Your task to perform on an android device: Open battery settings Image 0: 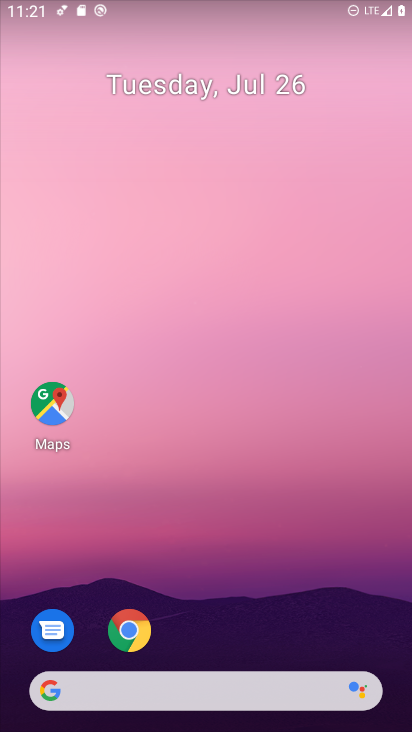
Step 0: drag from (317, 647) to (289, 175)
Your task to perform on an android device: Open battery settings Image 1: 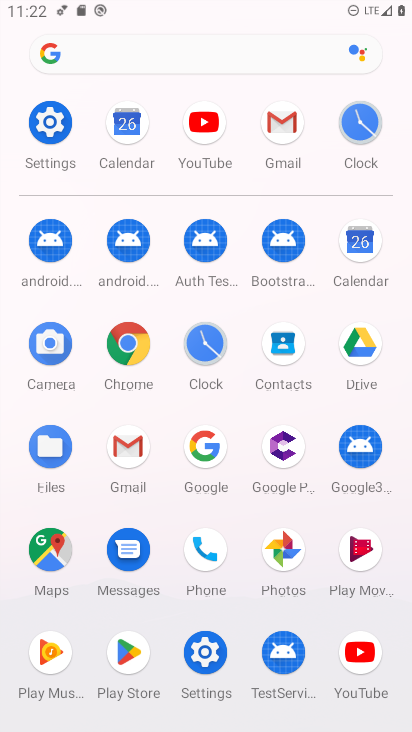
Step 1: click (206, 654)
Your task to perform on an android device: Open battery settings Image 2: 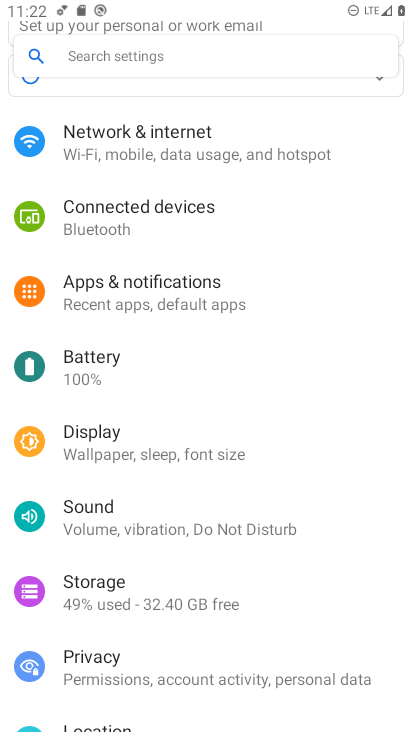
Step 2: click (62, 352)
Your task to perform on an android device: Open battery settings Image 3: 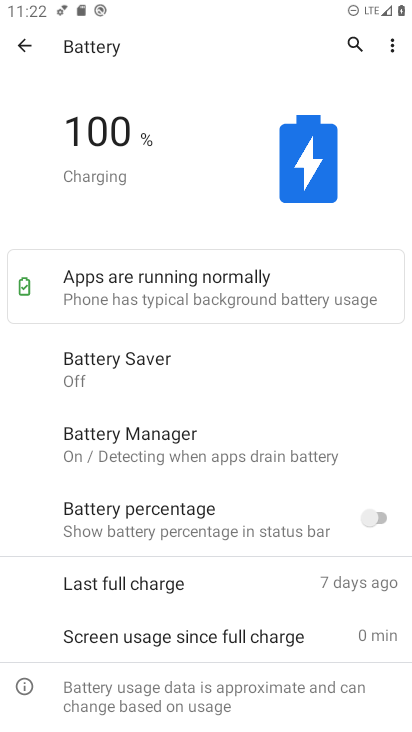
Step 3: task complete